Your task to perform on an android device: move a message to another label in the gmail app Image 0: 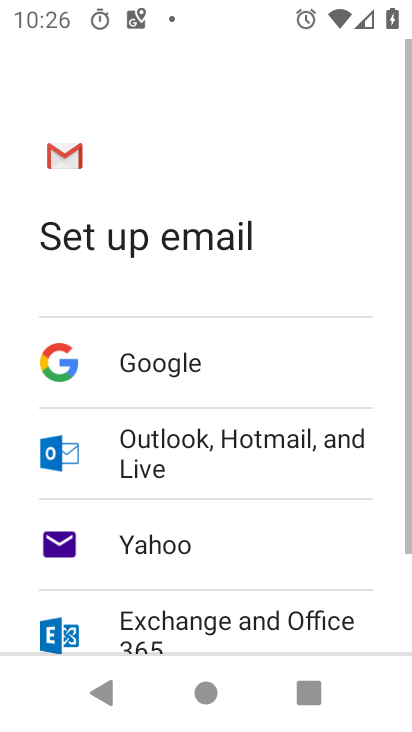
Step 0: press home button
Your task to perform on an android device: move a message to another label in the gmail app Image 1: 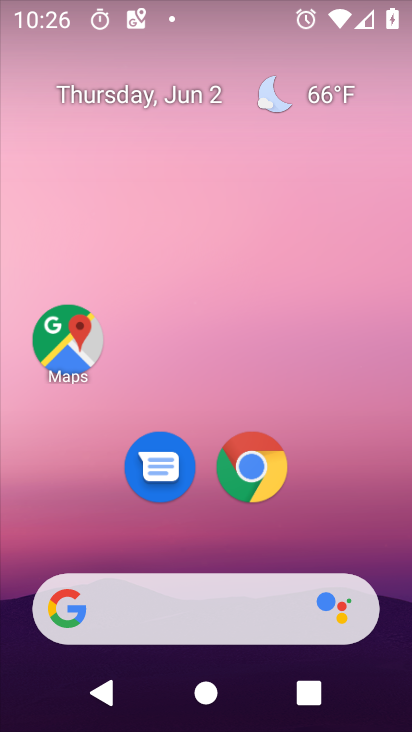
Step 1: drag from (33, 534) to (218, 132)
Your task to perform on an android device: move a message to another label in the gmail app Image 2: 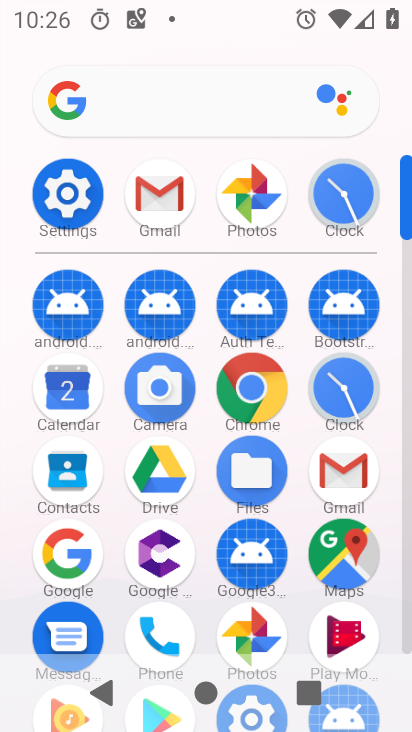
Step 2: click (332, 471)
Your task to perform on an android device: move a message to another label in the gmail app Image 3: 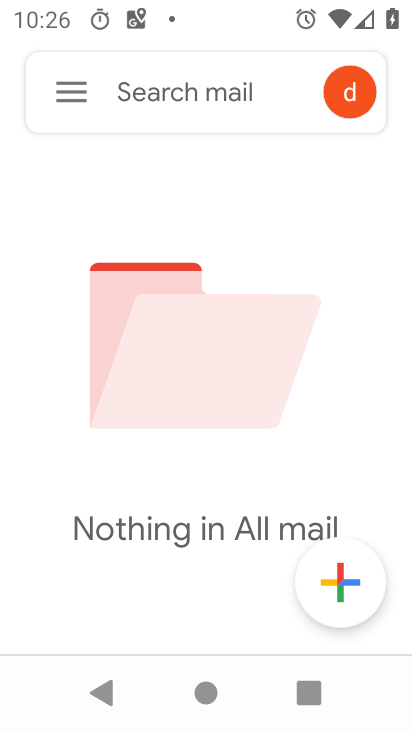
Step 3: click (80, 84)
Your task to perform on an android device: move a message to another label in the gmail app Image 4: 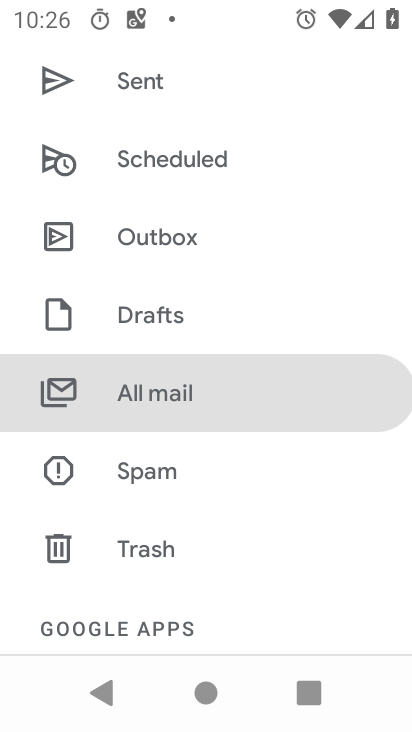
Step 4: task complete